Your task to perform on an android device: open a bookmark in the chrome app Image 0: 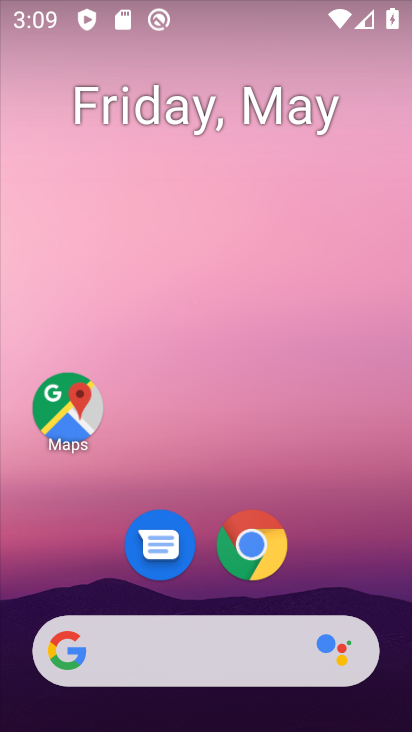
Step 0: click (264, 530)
Your task to perform on an android device: open a bookmark in the chrome app Image 1: 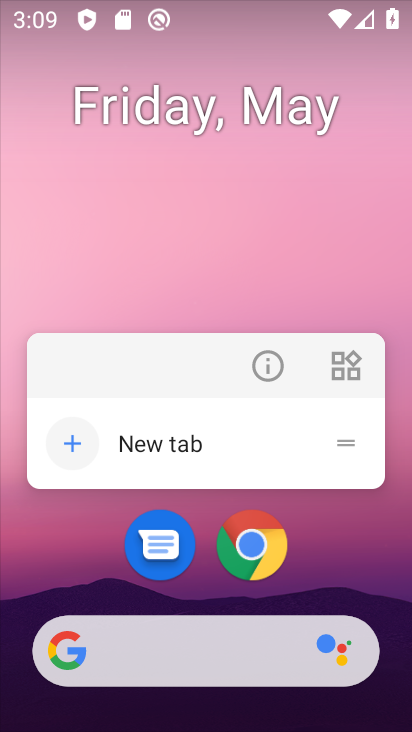
Step 1: click (264, 529)
Your task to perform on an android device: open a bookmark in the chrome app Image 2: 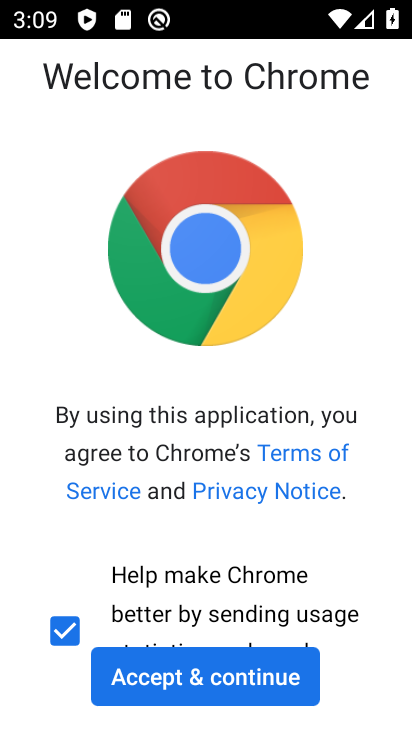
Step 2: click (230, 683)
Your task to perform on an android device: open a bookmark in the chrome app Image 3: 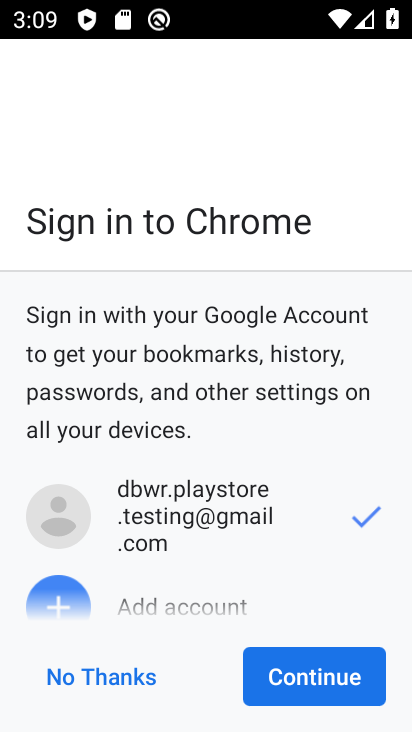
Step 3: click (342, 668)
Your task to perform on an android device: open a bookmark in the chrome app Image 4: 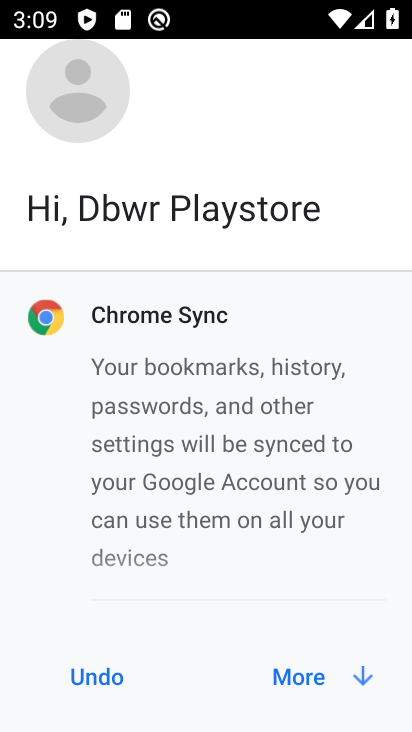
Step 4: click (342, 668)
Your task to perform on an android device: open a bookmark in the chrome app Image 5: 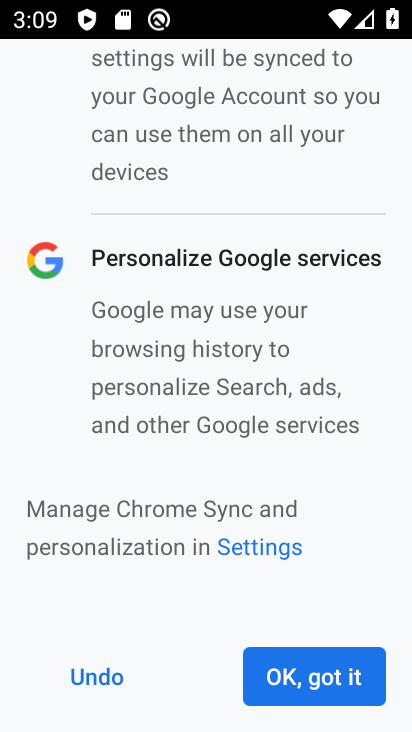
Step 5: click (342, 668)
Your task to perform on an android device: open a bookmark in the chrome app Image 6: 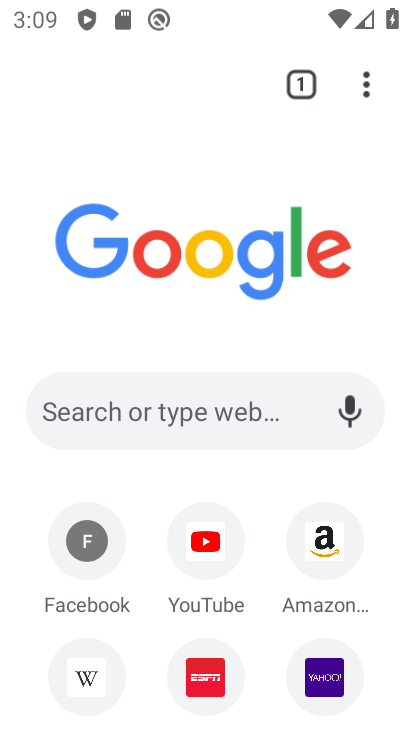
Step 6: task complete